Your task to perform on an android device: turn off notifications settings in the gmail app Image 0: 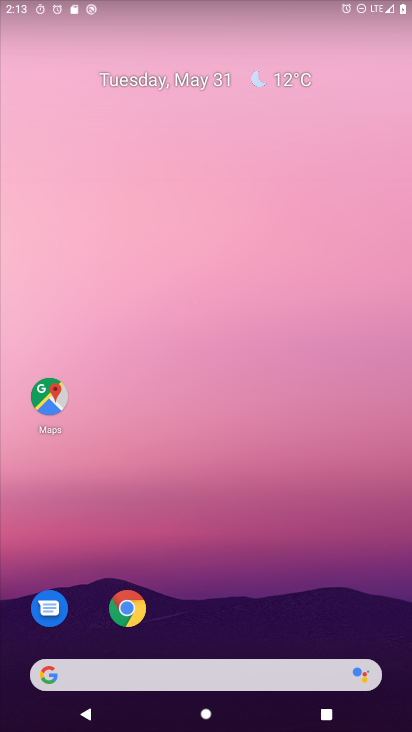
Step 0: drag from (288, 636) to (366, 37)
Your task to perform on an android device: turn off notifications settings in the gmail app Image 1: 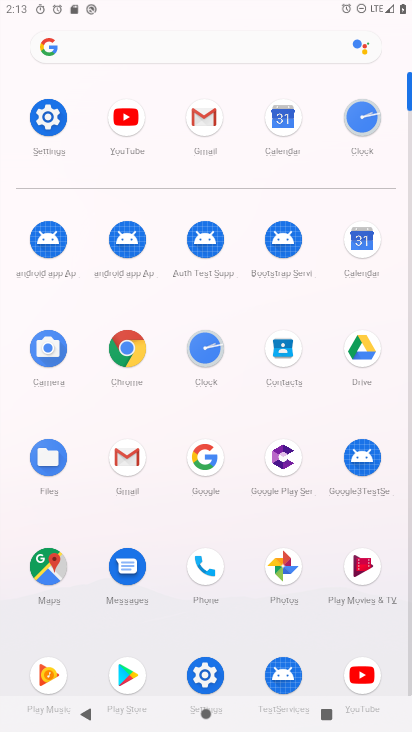
Step 1: click (196, 116)
Your task to perform on an android device: turn off notifications settings in the gmail app Image 2: 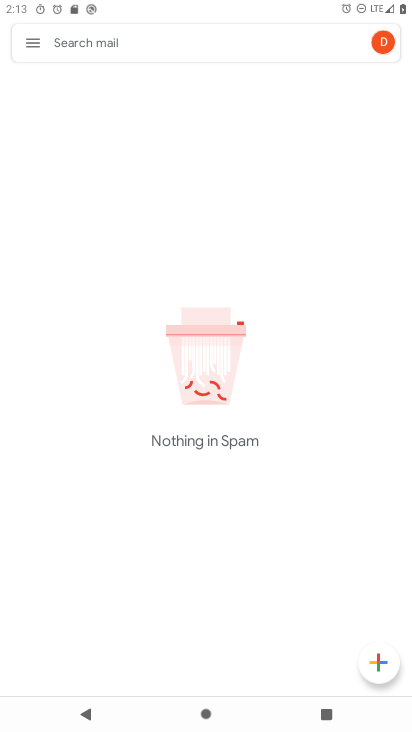
Step 2: click (32, 46)
Your task to perform on an android device: turn off notifications settings in the gmail app Image 3: 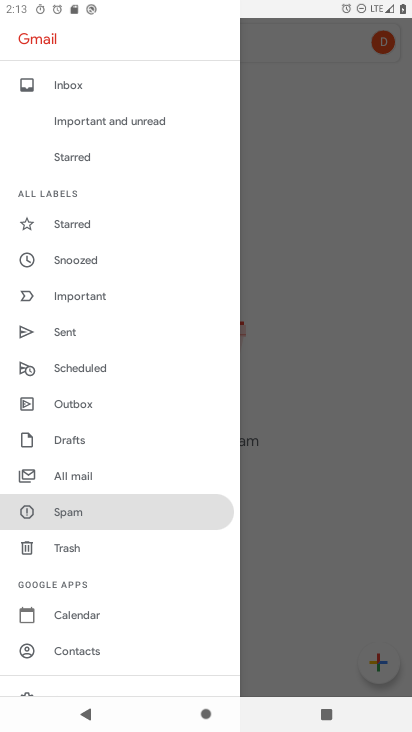
Step 3: drag from (115, 579) to (116, 290)
Your task to perform on an android device: turn off notifications settings in the gmail app Image 4: 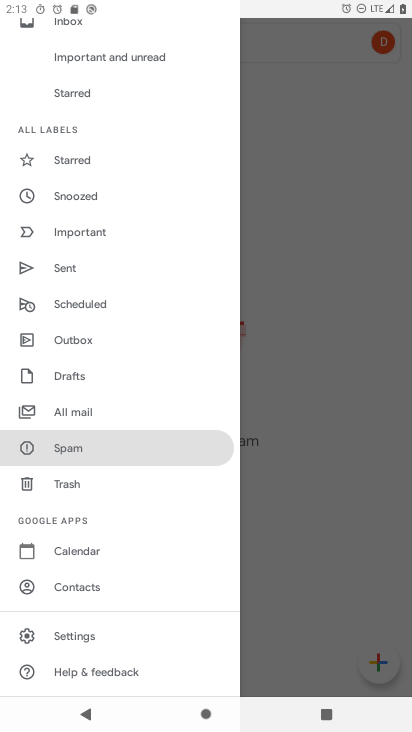
Step 4: click (67, 636)
Your task to perform on an android device: turn off notifications settings in the gmail app Image 5: 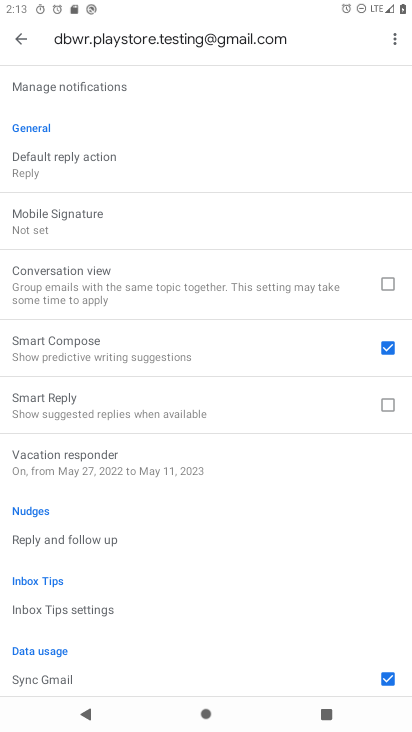
Step 5: click (21, 42)
Your task to perform on an android device: turn off notifications settings in the gmail app Image 6: 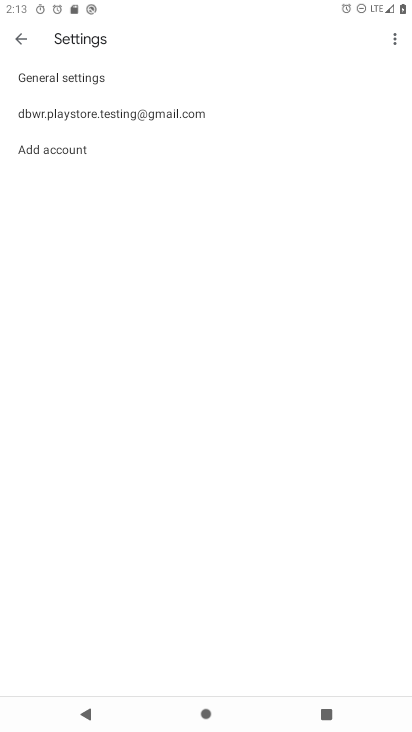
Step 6: click (73, 82)
Your task to perform on an android device: turn off notifications settings in the gmail app Image 7: 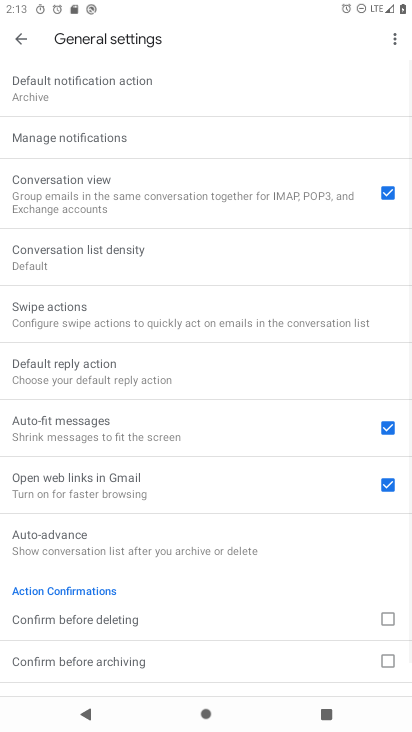
Step 7: click (83, 139)
Your task to perform on an android device: turn off notifications settings in the gmail app Image 8: 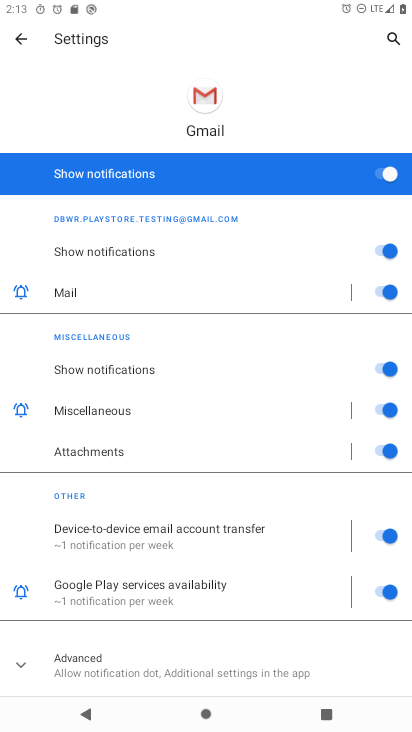
Step 8: click (382, 178)
Your task to perform on an android device: turn off notifications settings in the gmail app Image 9: 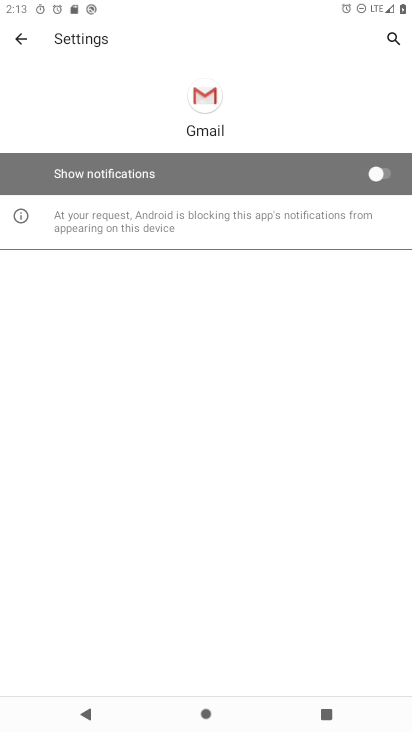
Step 9: task complete